Your task to perform on an android device: Open calendar and show me the third week of next month Image 0: 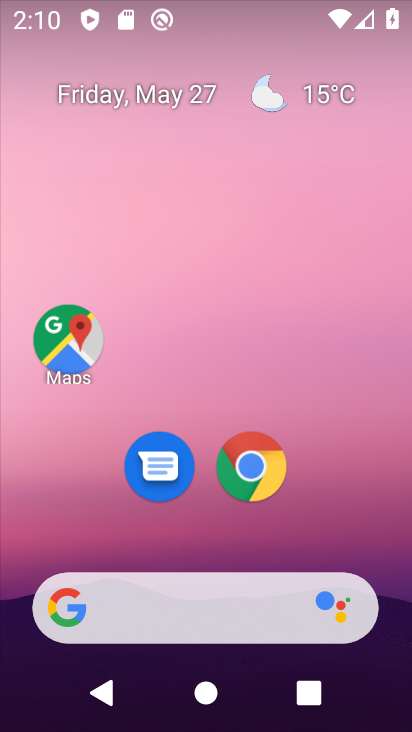
Step 0: drag from (365, 551) to (332, 134)
Your task to perform on an android device: Open calendar and show me the third week of next month Image 1: 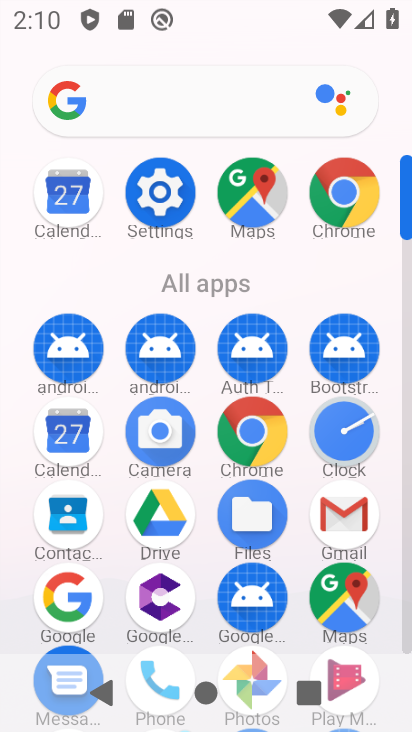
Step 1: click (61, 430)
Your task to perform on an android device: Open calendar and show me the third week of next month Image 2: 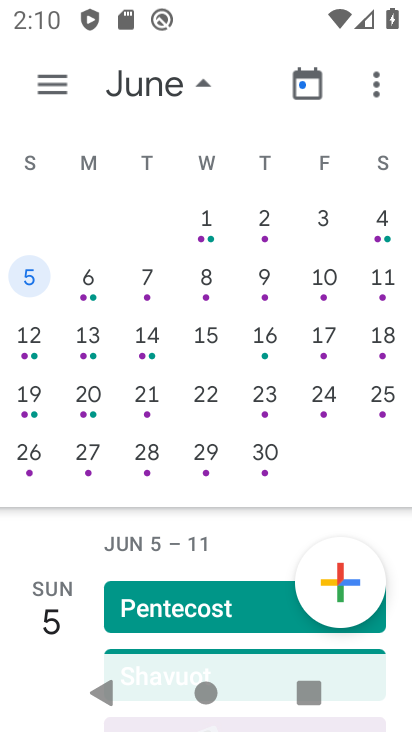
Step 2: click (27, 343)
Your task to perform on an android device: Open calendar and show me the third week of next month Image 3: 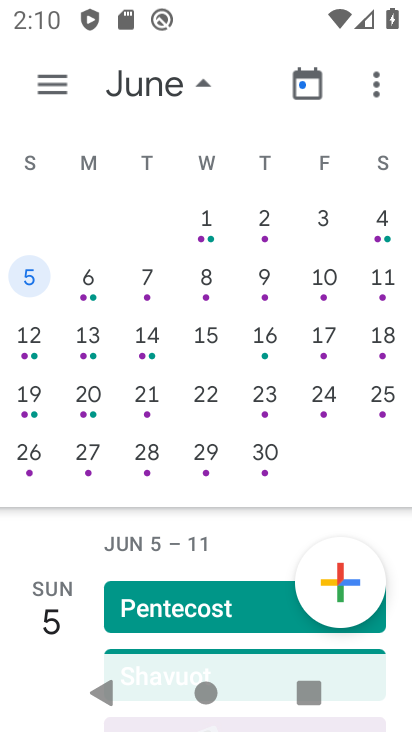
Step 3: click (45, 335)
Your task to perform on an android device: Open calendar and show me the third week of next month Image 4: 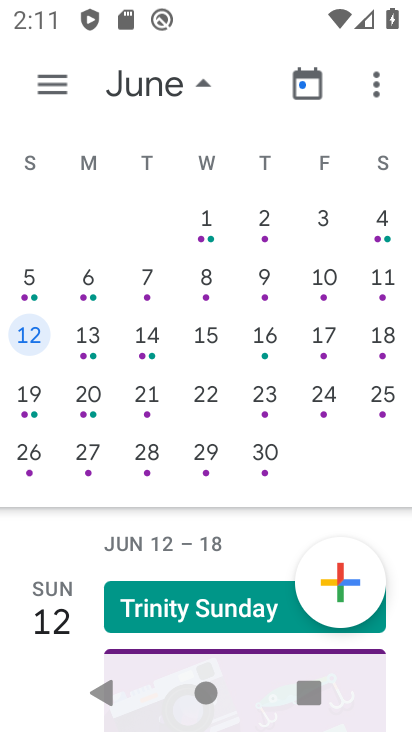
Step 4: task complete